Your task to perform on an android device: Go to ESPN.com Image 0: 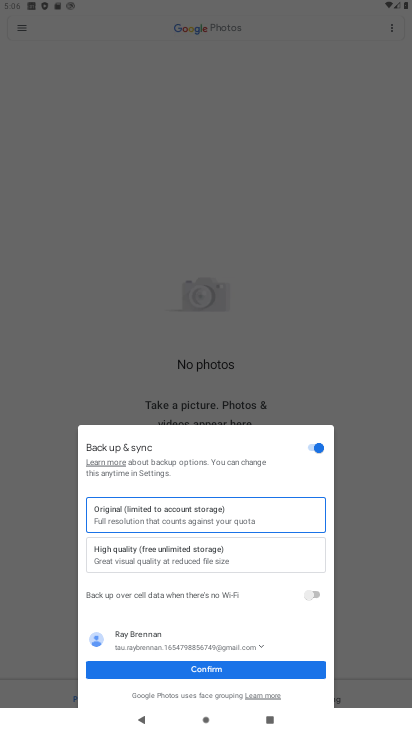
Step 0: press home button
Your task to perform on an android device: Go to ESPN.com Image 1: 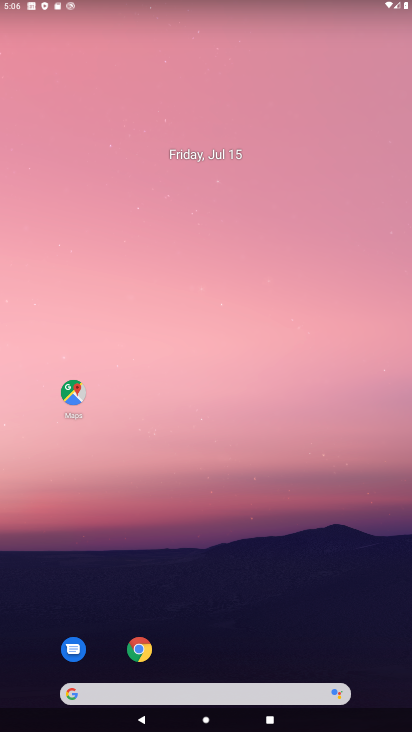
Step 1: click (140, 648)
Your task to perform on an android device: Go to ESPN.com Image 2: 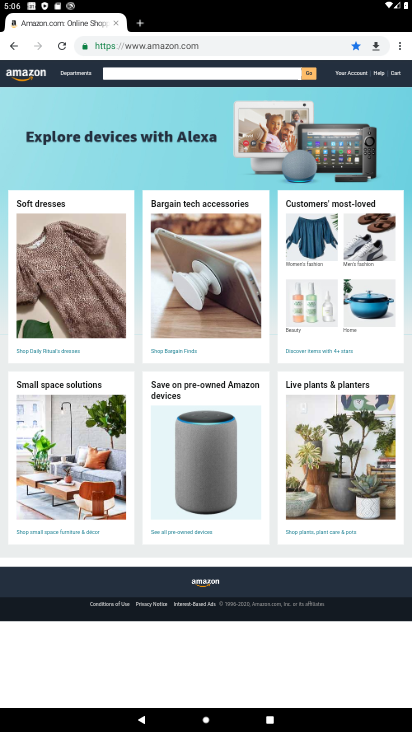
Step 2: click (265, 45)
Your task to perform on an android device: Go to ESPN.com Image 3: 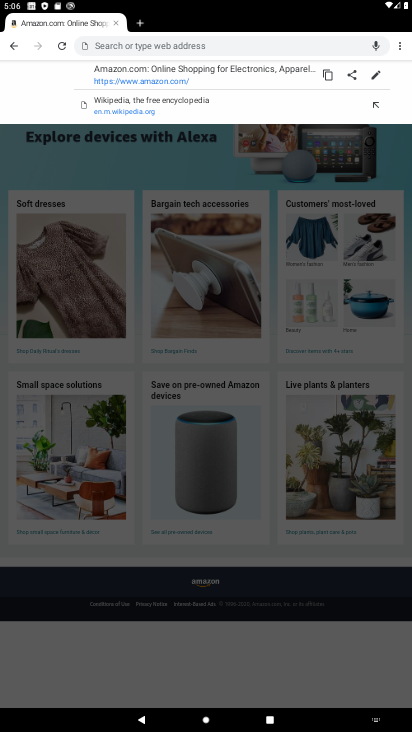
Step 3: type "ESPN.com"
Your task to perform on an android device: Go to ESPN.com Image 4: 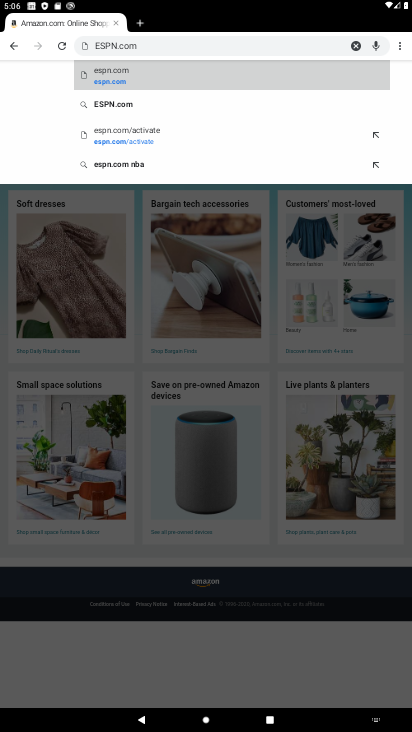
Step 4: click (132, 100)
Your task to perform on an android device: Go to ESPN.com Image 5: 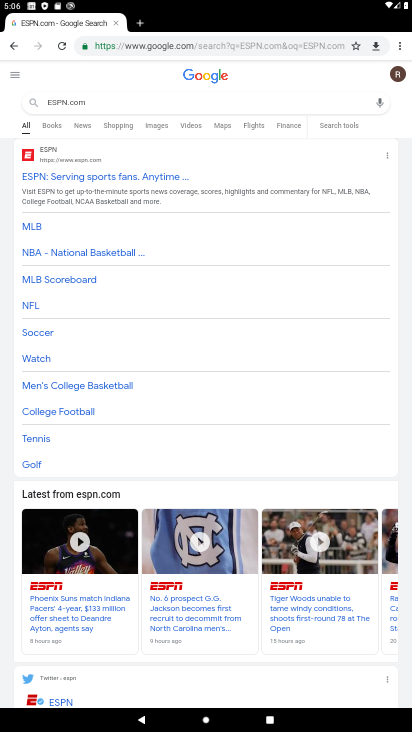
Step 5: click (110, 176)
Your task to perform on an android device: Go to ESPN.com Image 6: 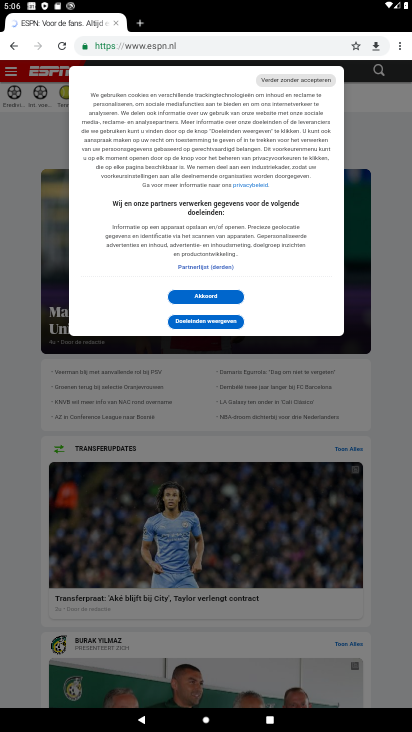
Step 6: click (189, 298)
Your task to perform on an android device: Go to ESPN.com Image 7: 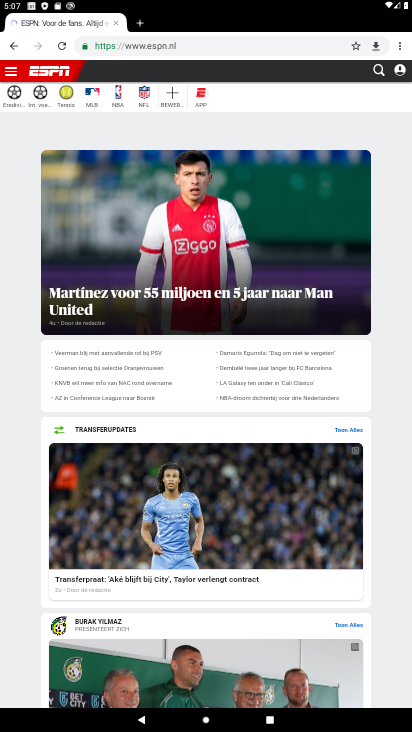
Step 7: task complete